Your task to perform on an android device: Show me recent news Image 0: 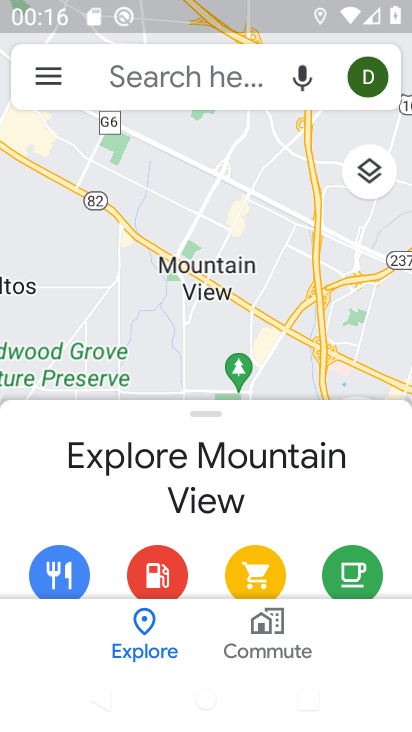
Step 0: press home button
Your task to perform on an android device: Show me recent news Image 1: 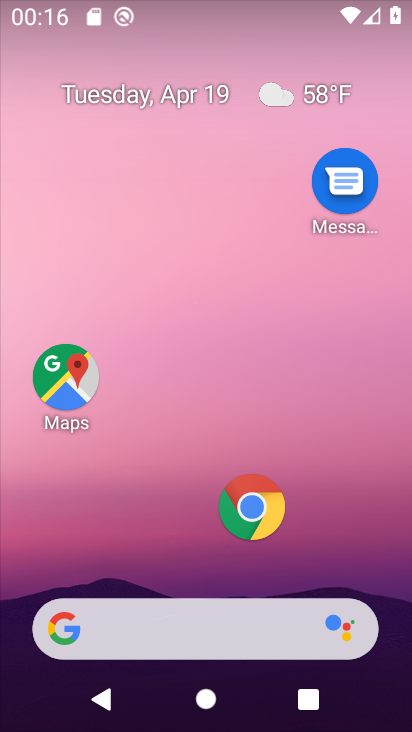
Step 1: drag from (159, 408) to (227, 3)
Your task to perform on an android device: Show me recent news Image 2: 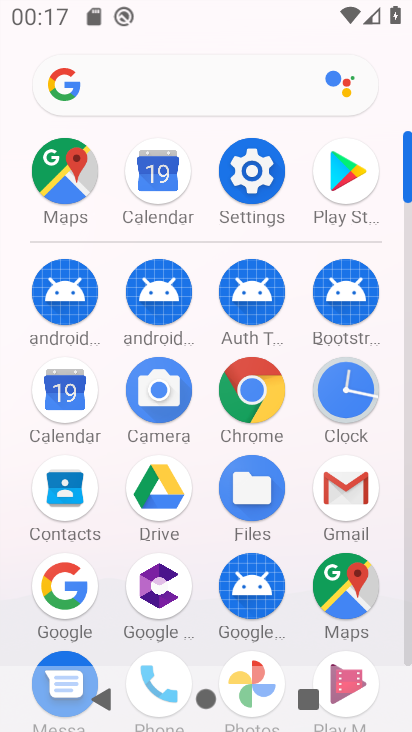
Step 2: click (163, 94)
Your task to perform on an android device: Show me recent news Image 3: 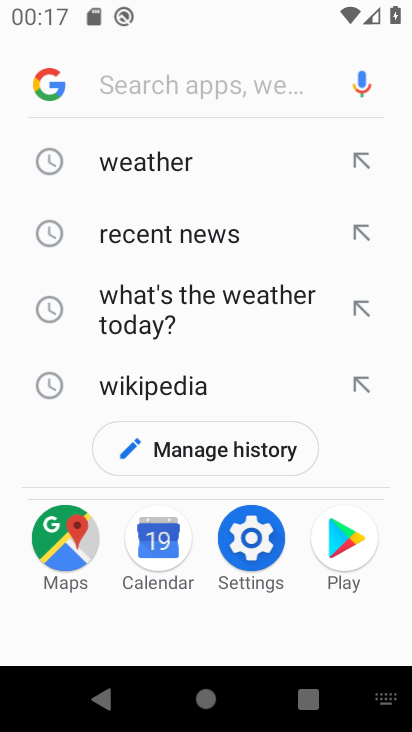
Step 3: type "recent news"
Your task to perform on an android device: Show me recent news Image 4: 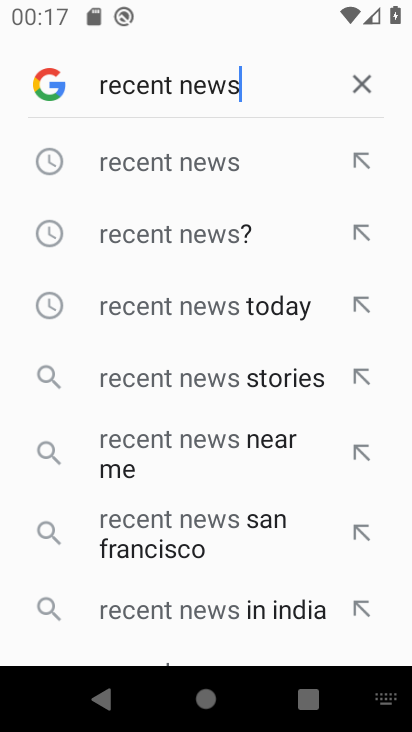
Step 4: click (204, 164)
Your task to perform on an android device: Show me recent news Image 5: 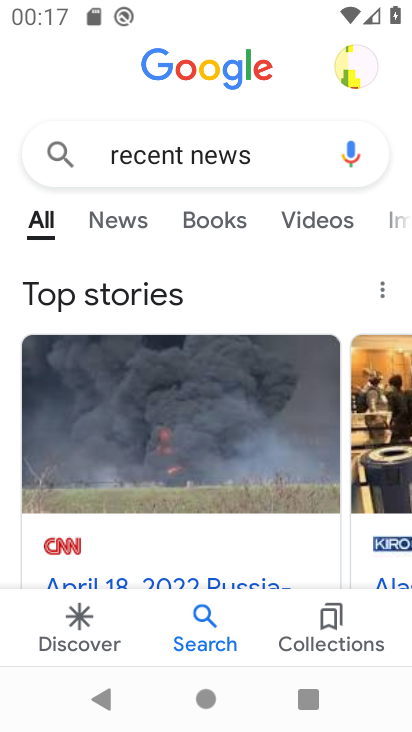
Step 5: task complete